Your task to perform on an android device: Do I have any events tomorrow? Image 0: 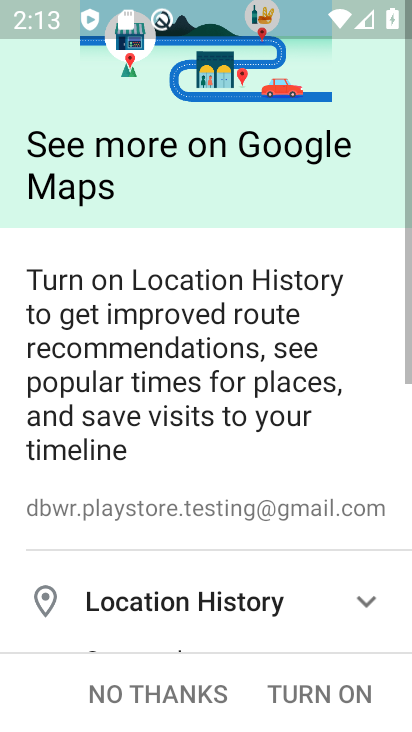
Step 0: press home button
Your task to perform on an android device: Do I have any events tomorrow? Image 1: 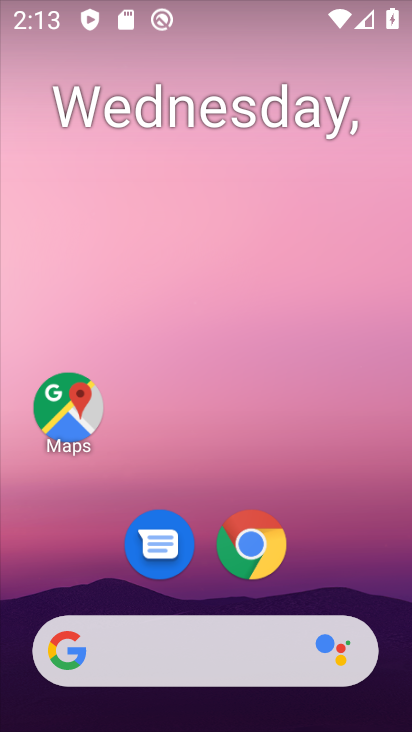
Step 1: drag from (365, 589) to (369, 79)
Your task to perform on an android device: Do I have any events tomorrow? Image 2: 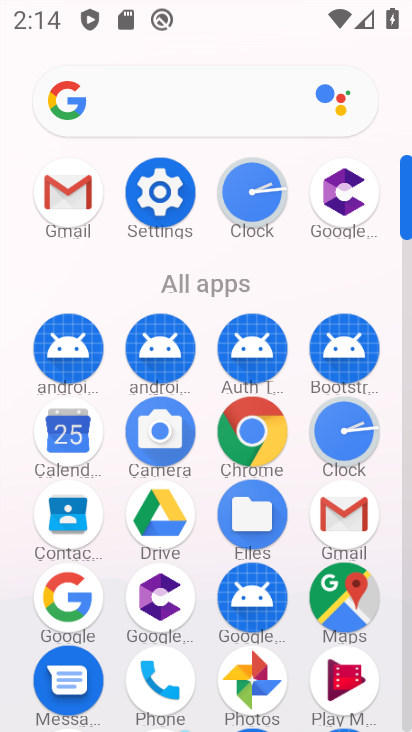
Step 2: click (81, 436)
Your task to perform on an android device: Do I have any events tomorrow? Image 3: 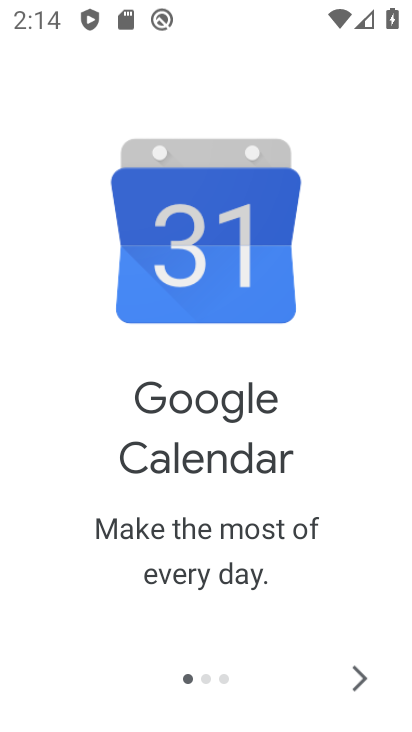
Step 3: click (366, 679)
Your task to perform on an android device: Do I have any events tomorrow? Image 4: 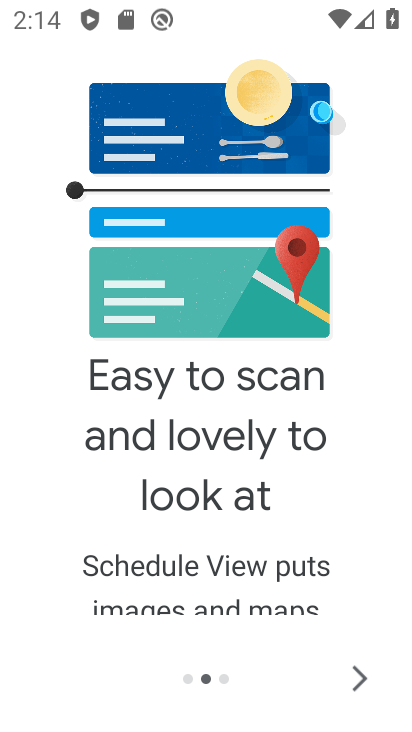
Step 4: click (363, 680)
Your task to perform on an android device: Do I have any events tomorrow? Image 5: 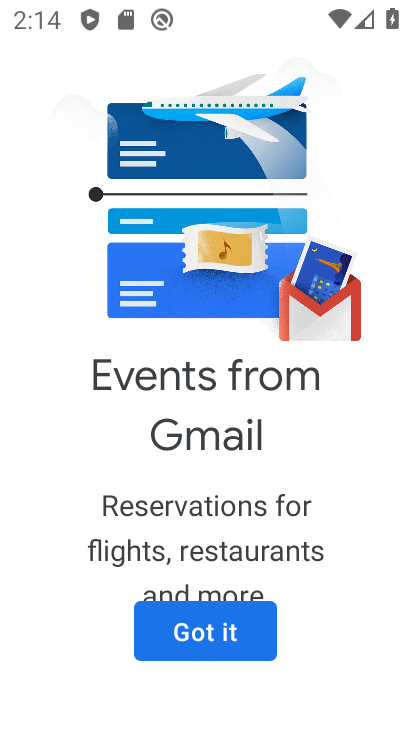
Step 5: click (245, 633)
Your task to perform on an android device: Do I have any events tomorrow? Image 6: 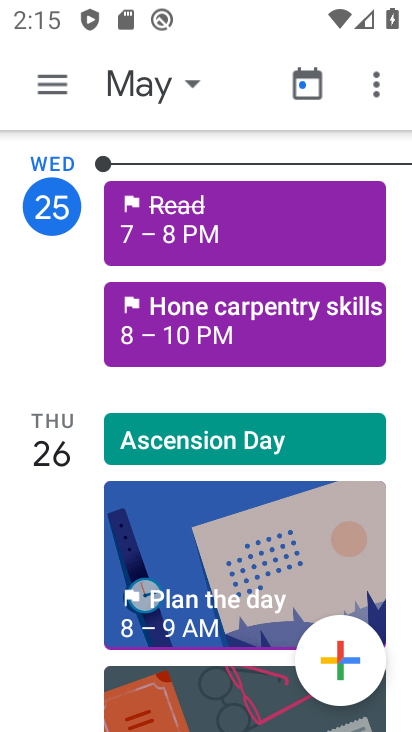
Step 6: task complete